Your task to perform on an android device: turn off sleep mode Image 0: 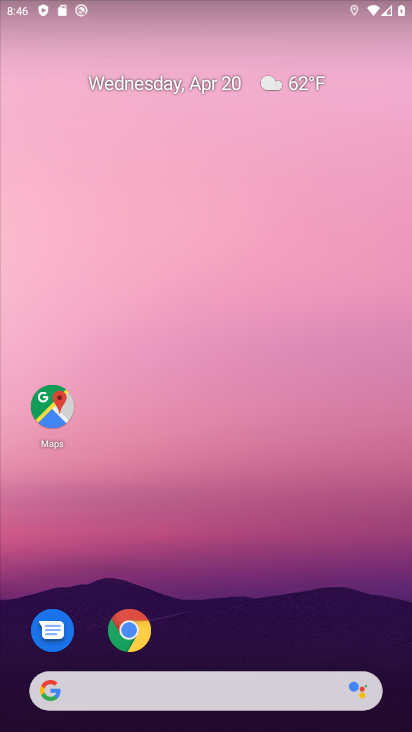
Step 0: drag from (207, 645) to (251, 15)
Your task to perform on an android device: turn off sleep mode Image 1: 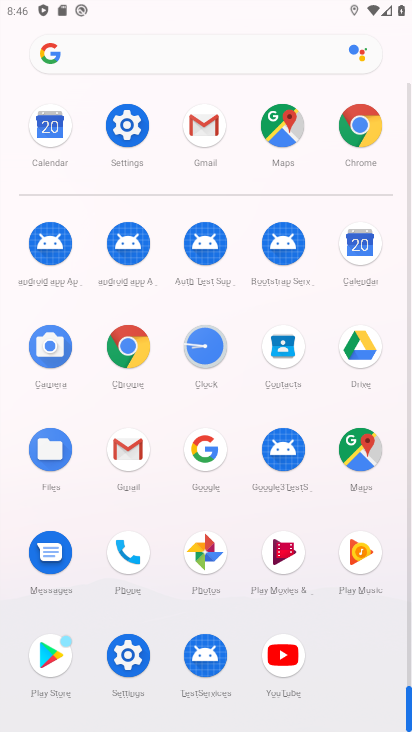
Step 1: click (131, 122)
Your task to perform on an android device: turn off sleep mode Image 2: 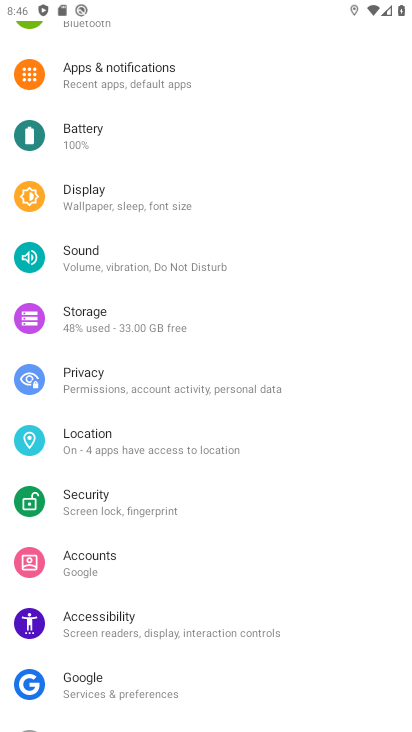
Step 2: drag from (193, 131) to (134, 660)
Your task to perform on an android device: turn off sleep mode Image 3: 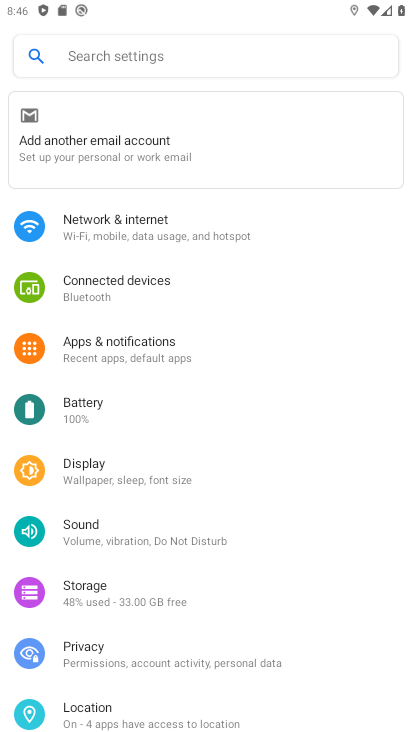
Step 3: click (188, 56)
Your task to perform on an android device: turn off sleep mode Image 4: 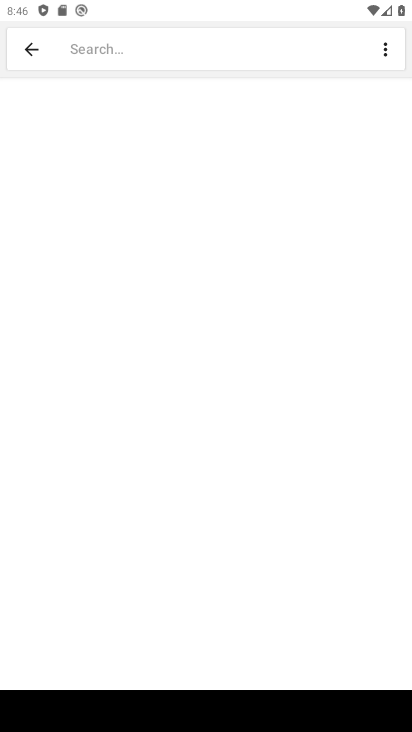
Step 4: type "sleep mode"
Your task to perform on an android device: turn off sleep mode Image 5: 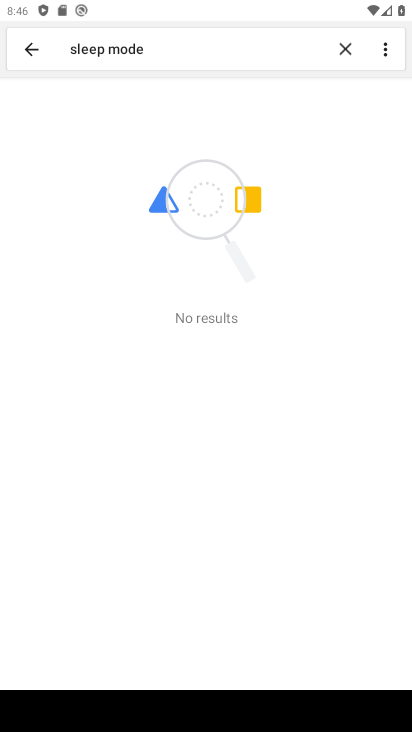
Step 5: task complete